Your task to perform on an android device: Go to sound settings Image 0: 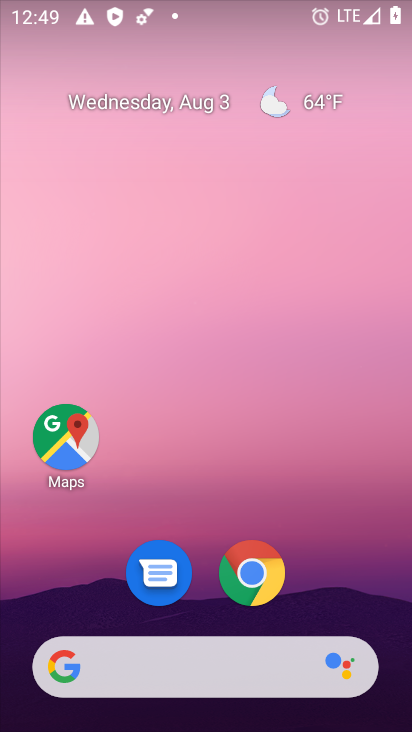
Step 0: drag from (228, 666) to (268, 185)
Your task to perform on an android device: Go to sound settings Image 1: 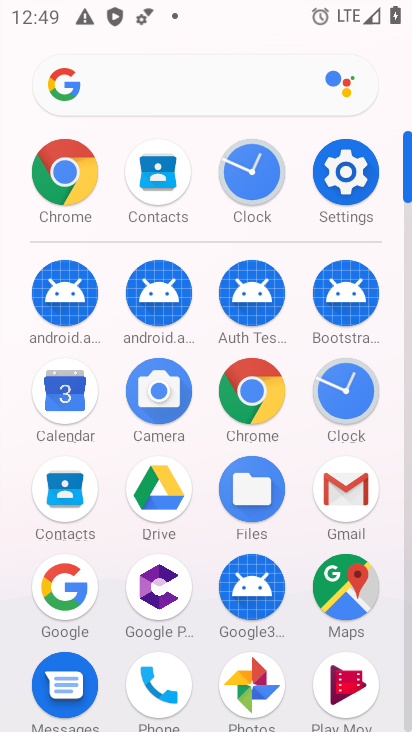
Step 1: click (350, 204)
Your task to perform on an android device: Go to sound settings Image 2: 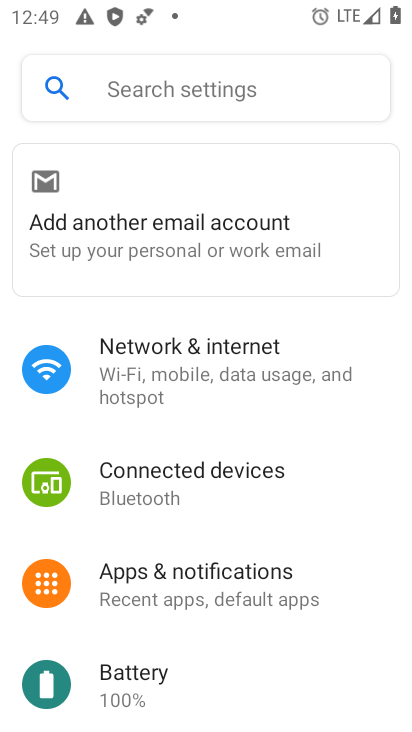
Step 2: drag from (193, 551) to (233, 166)
Your task to perform on an android device: Go to sound settings Image 3: 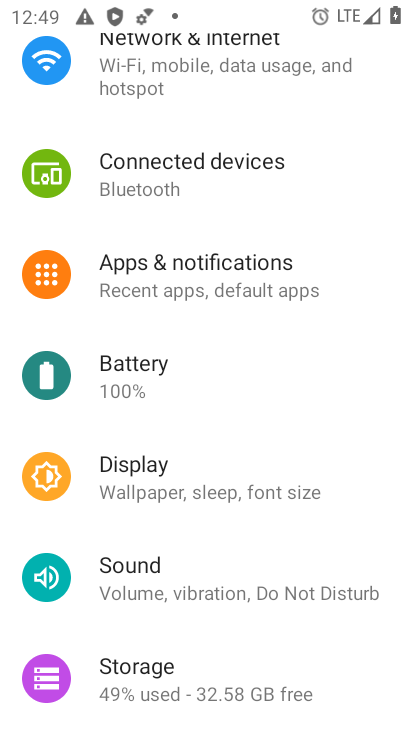
Step 3: drag from (193, 517) to (233, 285)
Your task to perform on an android device: Go to sound settings Image 4: 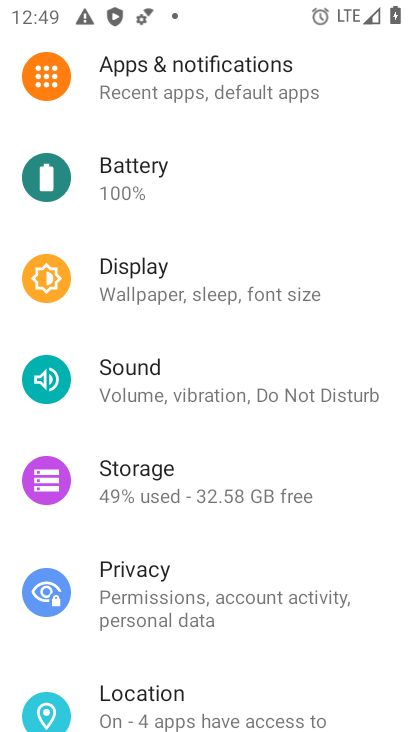
Step 4: click (172, 379)
Your task to perform on an android device: Go to sound settings Image 5: 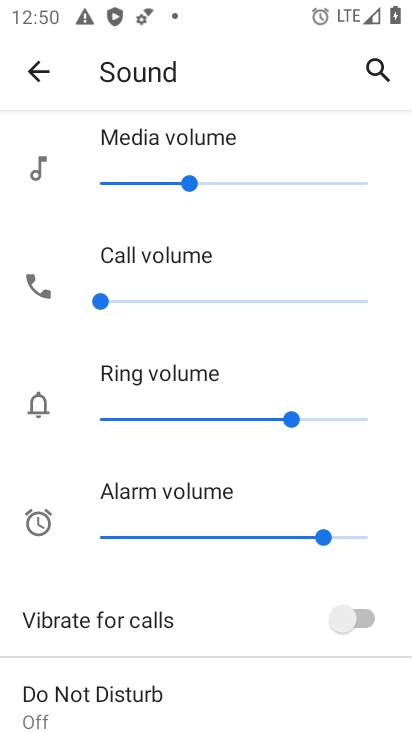
Step 5: task complete